Your task to perform on an android device: What's the news in Ecuador? Image 0: 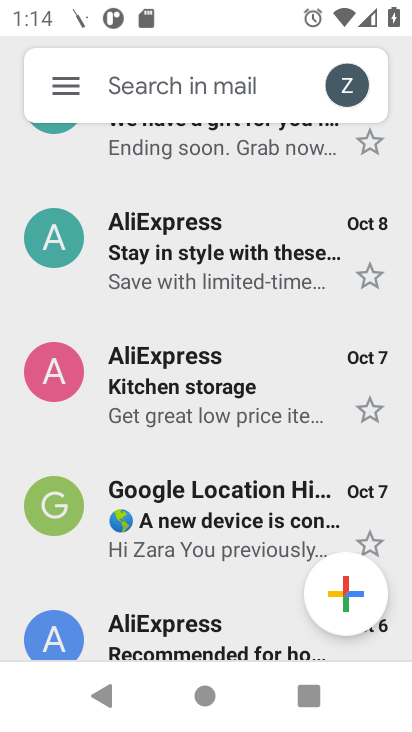
Step 0: press home button
Your task to perform on an android device: What's the news in Ecuador? Image 1: 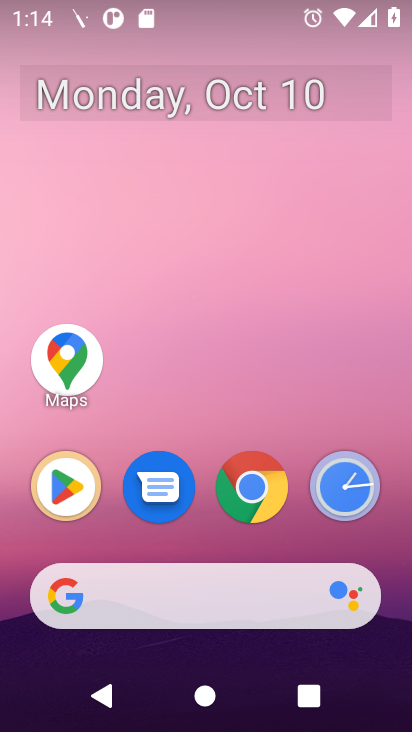
Step 1: click (253, 491)
Your task to perform on an android device: What's the news in Ecuador? Image 2: 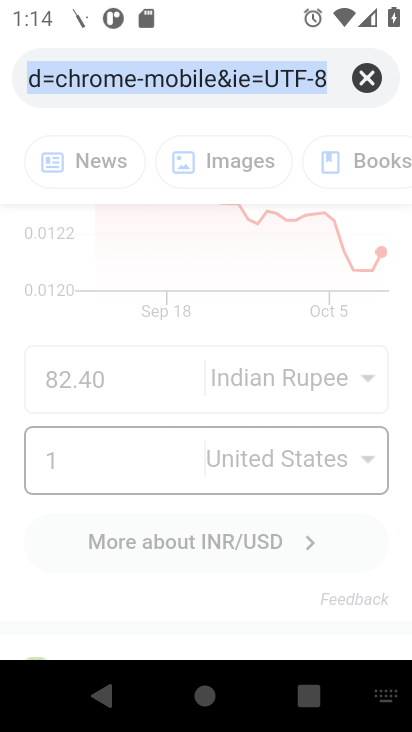
Step 2: type "news in Ecuador"
Your task to perform on an android device: What's the news in Ecuador? Image 3: 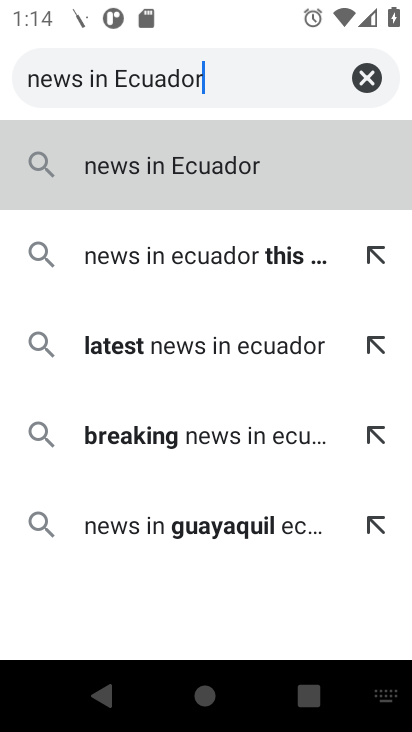
Step 3: type ""
Your task to perform on an android device: What's the news in Ecuador? Image 4: 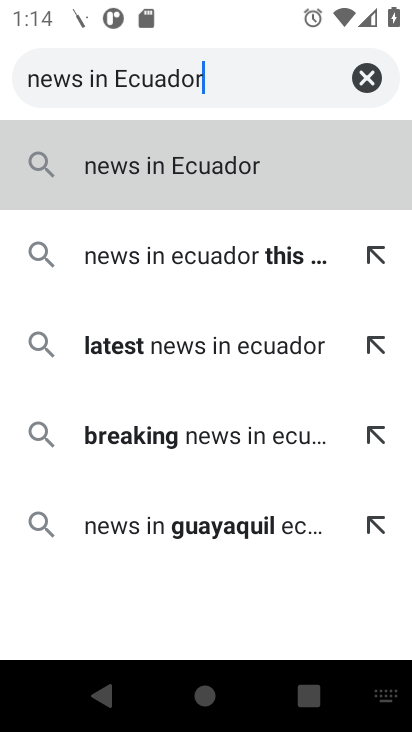
Step 4: press enter
Your task to perform on an android device: What's the news in Ecuador? Image 5: 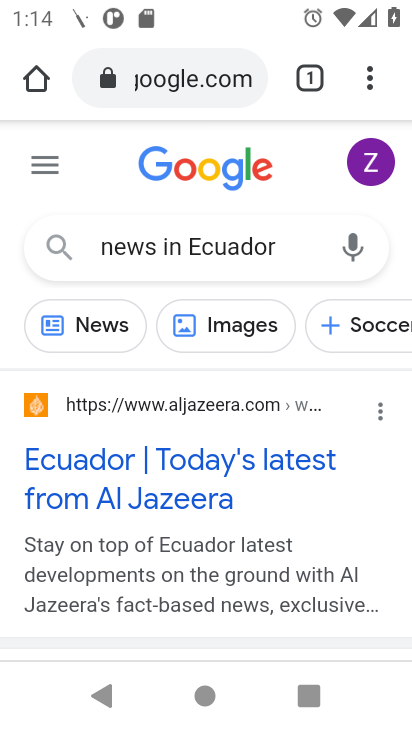
Step 5: drag from (284, 563) to (259, 187)
Your task to perform on an android device: What's the news in Ecuador? Image 6: 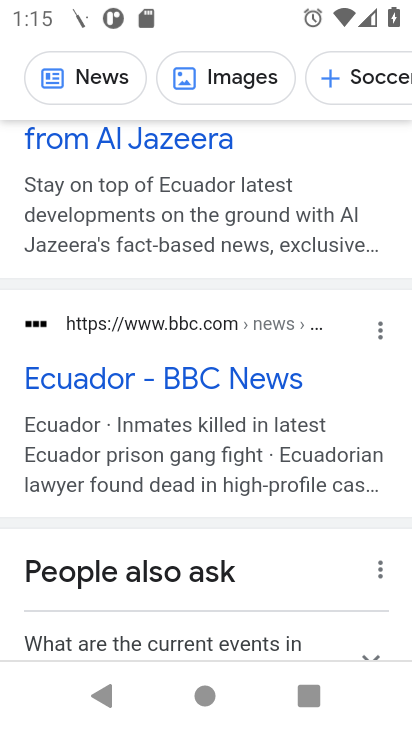
Step 6: drag from (249, 494) to (253, 551)
Your task to perform on an android device: What's the news in Ecuador? Image 7: 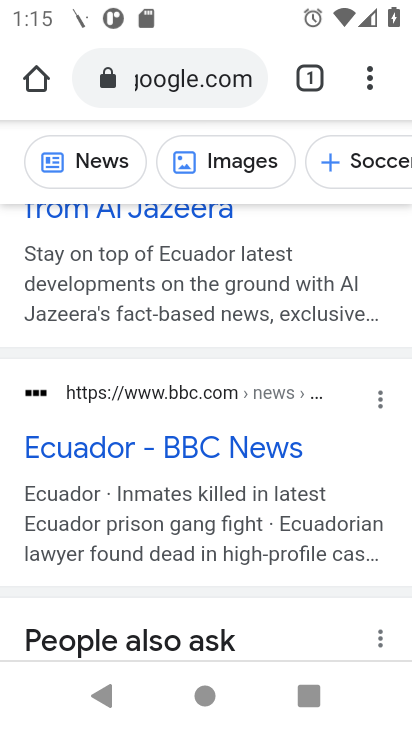
Step 7: click (97, 160)
Your task to perform on an android device: What's the news in Ecuador? Image 8: 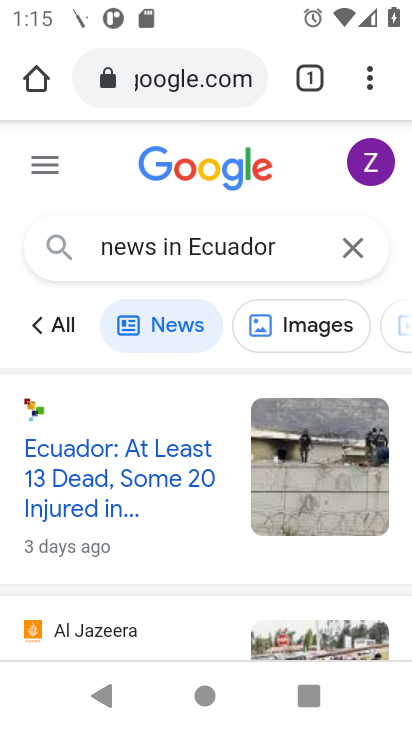
Step 8: task complete